Your task to perform on an android device: turn off improve location accuracy Image 0: 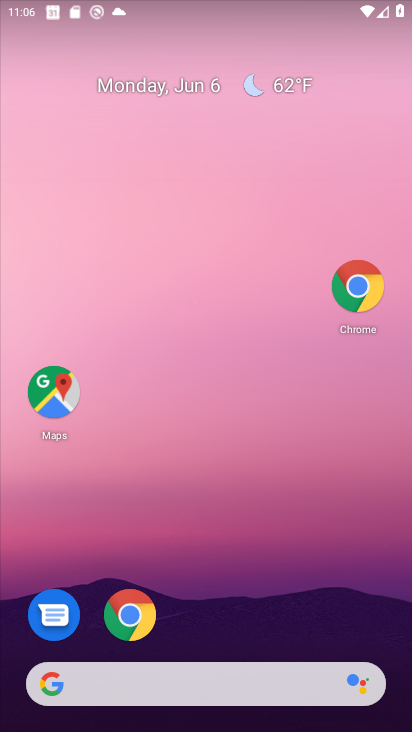
Step 0: drag from (220, 220) to (211, 166)
Your task to perform on an android device: turn off improve location accuracy Image 1: 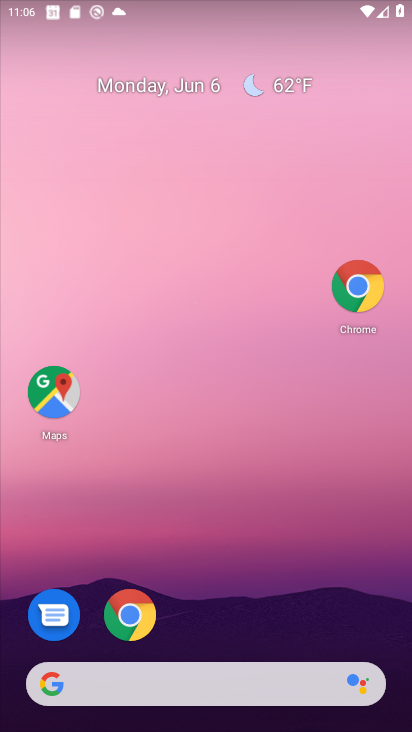
Step 1: drag from (262, 607) to (250, 22)
Your task to perform on an android device: turn off improve location accuracy Image 2: 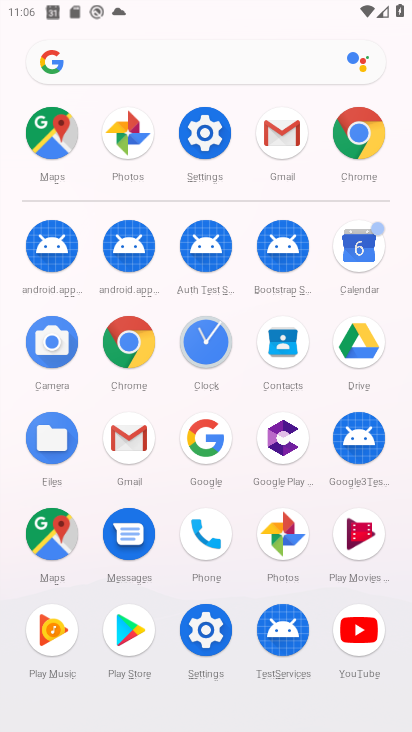
Step 2: click (199, 141)
Your task to perform on an android device: turn off improve location accuracy Image 3: 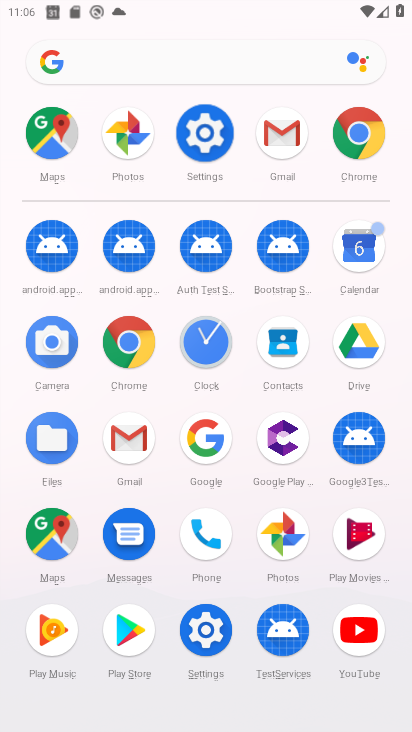
Step 3: click (199, 141)
Your task to perform on an android device: turn off improve location accuracy Image 4: 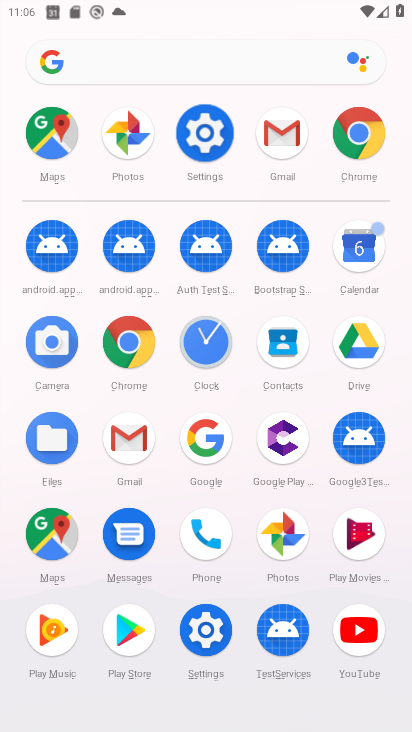
Step 4: click (199, 140)
Your task to perform on an android device: turn off improve location accuracy Image 5: 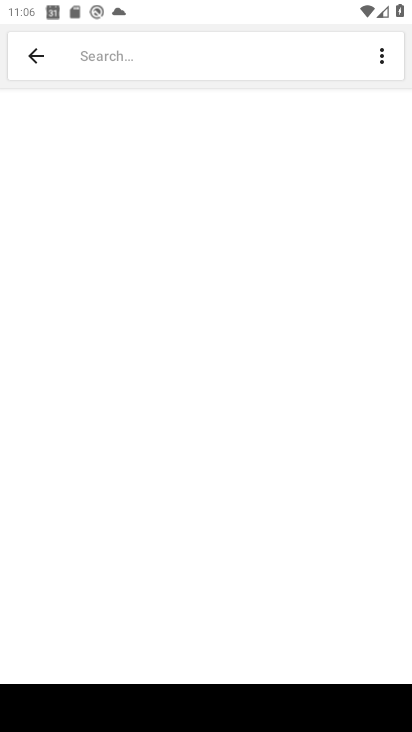
Step 5: click (34, 51)
Your task to perform on an android device: turn off improve location accuracy Image 6: 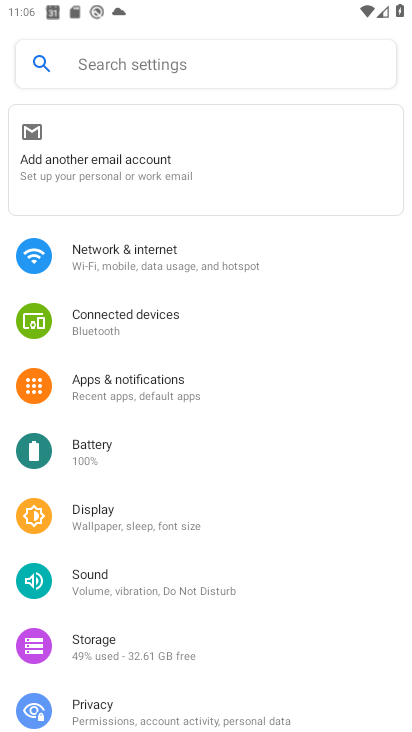
Step 6: click (129, 397)
Your task to perform on an android device: turn off improve location accuracy Image 7: 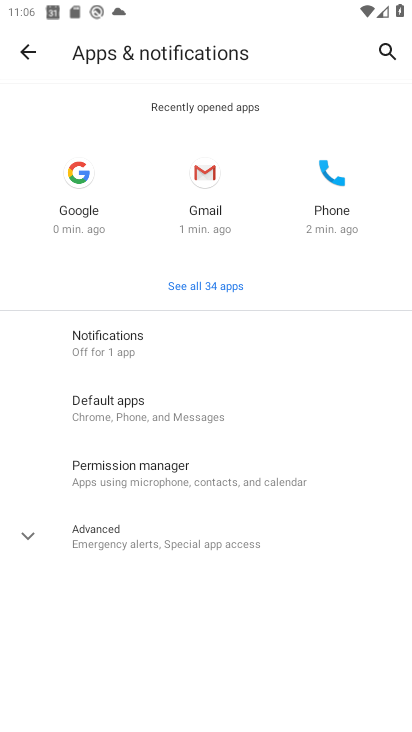
Step 7: click (25, 49)
Your task to perform on an android device: turn off improve location accuracy Image 8: 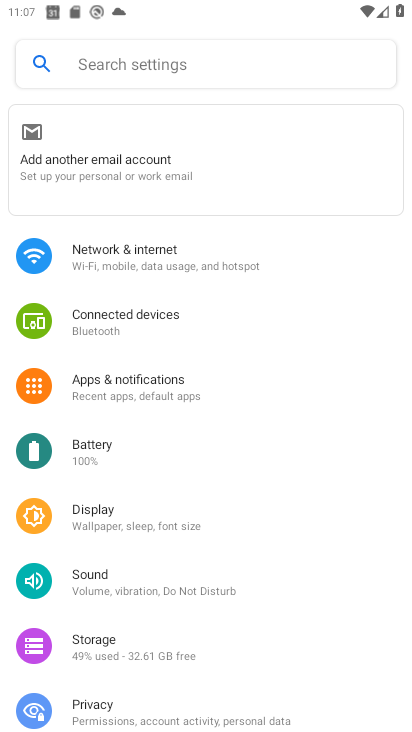
Step 8: drag from (162, 482) to (132, 239)
Your task to perform on an android device: turn off improve location accuracy Image 9: 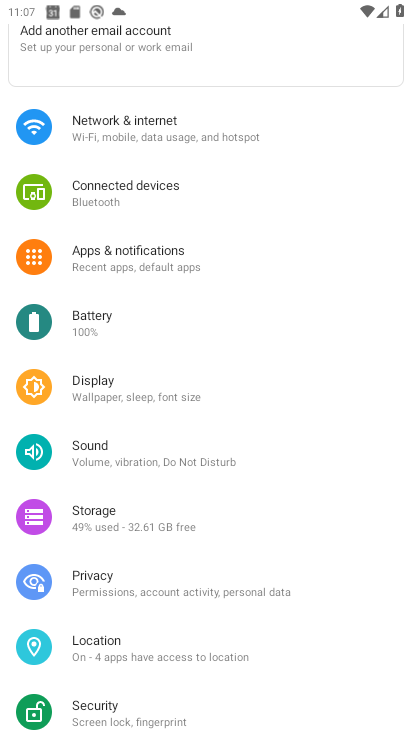
Step 9: drag from (173, 553) to (127, 226)
Your task to perform on an android device: turn off improve location accuracy Image 10: 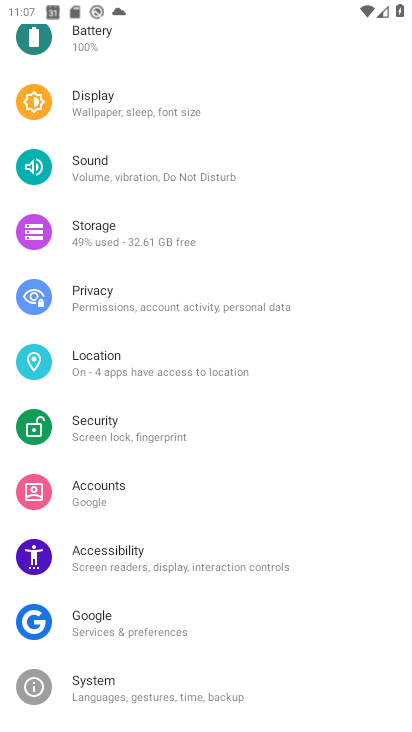
Step 10: drag from (161, 488) to (161, 212)
Your task to perform on an android device: turn off improve location accuracy Image 11: 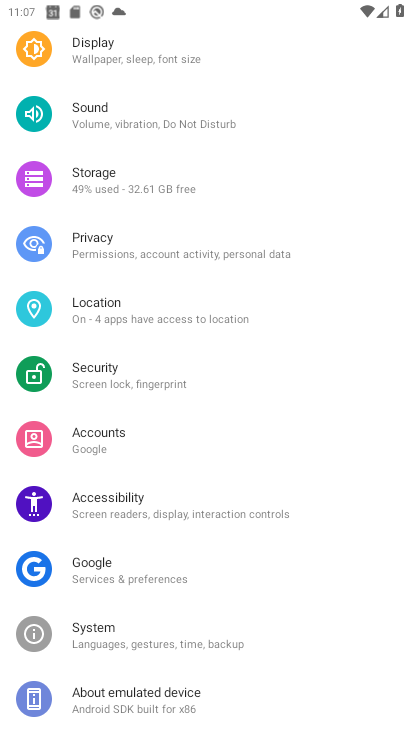
Step 11: click (112, 313)
Your task to perform on an android device: turn off improve location accuracy Image 12: 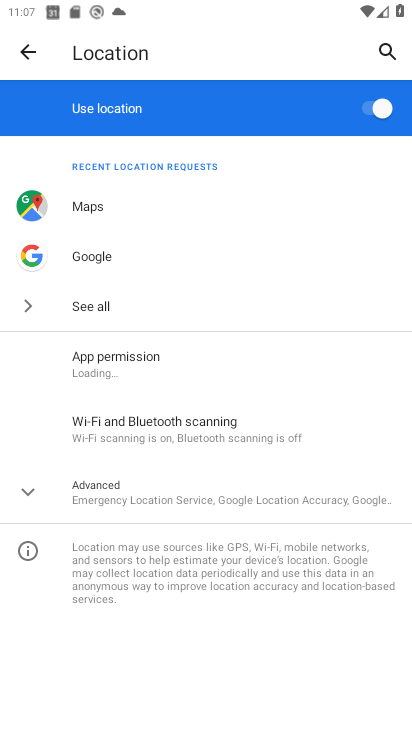
Step 12: click (139, 496)
Your task to perform on an android device: turn off improve location accuracy Image 13: 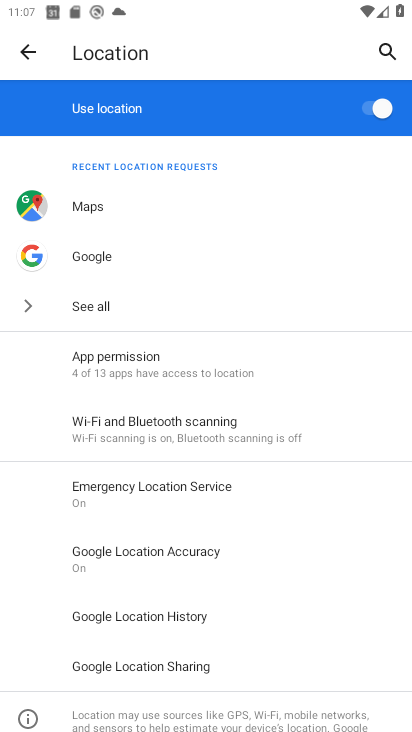
Step 13: click (146, 554)
Your task to perform on an android device: turn off improve location accuracy Image 14: 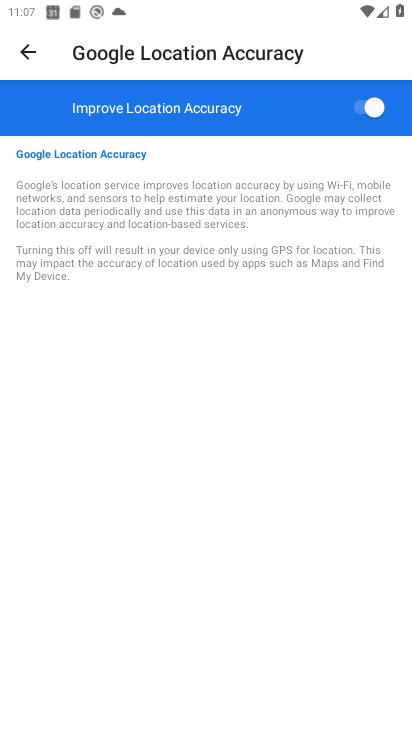
Step 14: click (367, 99)
Your task to perform on an android device: turn off improve location accuracy Image 15: 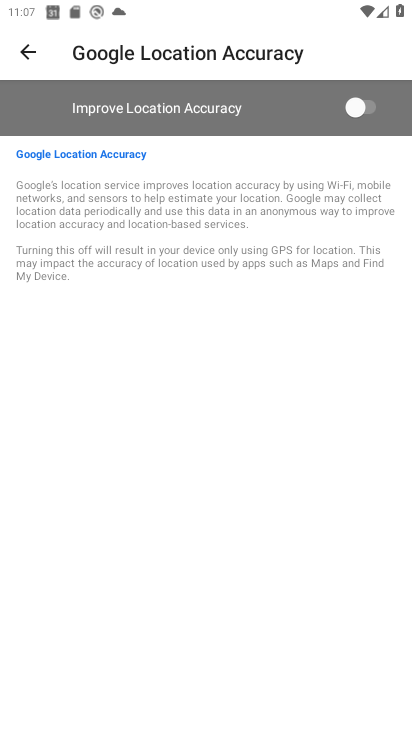
Step 15: task complete